Your task to perform on an android device: snooze an email in the gmail app Image 0: 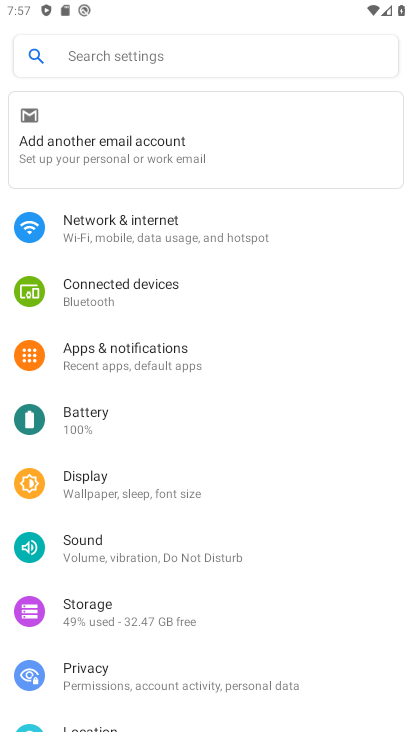
Step 0: press home button
Your task to perform on an android device: snooze an email in the gmail app Image 1: 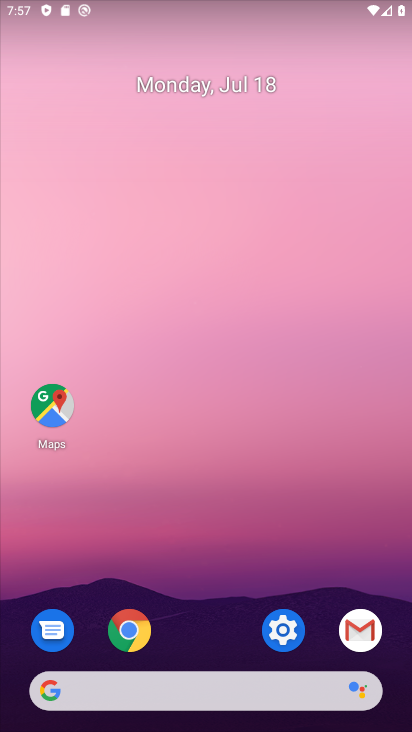
Step 1: click (355, 643)
Your task to perform on an android device: snooze an email in the gmail app Image 2: 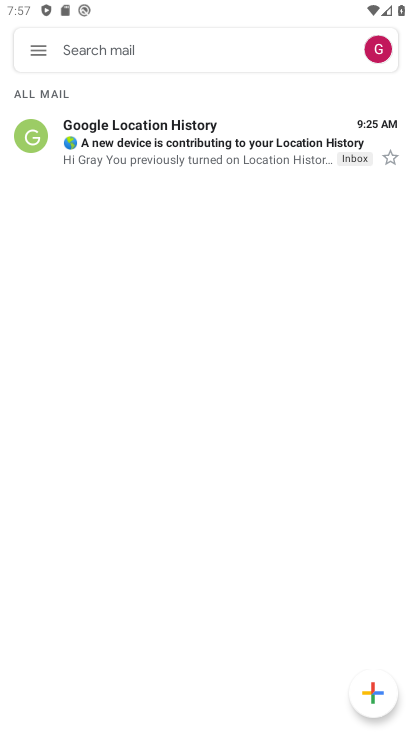
Step 2: click (37, 56)
Your task to perform on an android device: snooze an email in the gmail app Image 3: 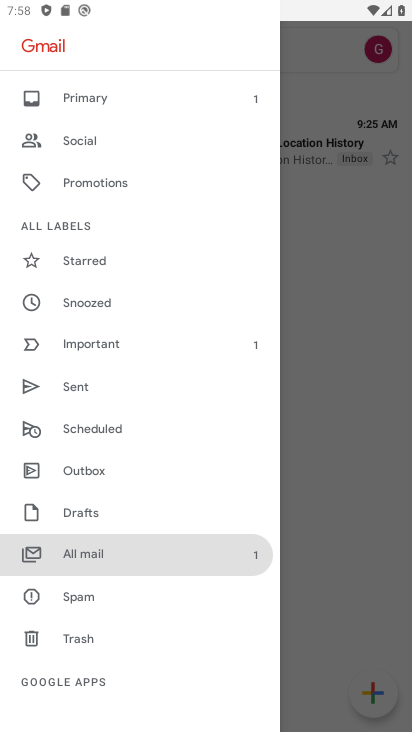
Step 3: click (103, 301)
Your task to perform on an android device: snooze an email in the gmail app Image 4: 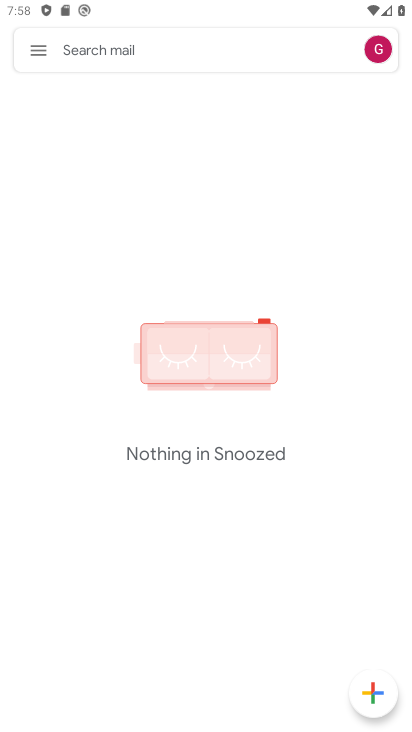
Step 4: task complete